Your task to perform on an android device: Set the phone to "Do not disturb". Image 0: 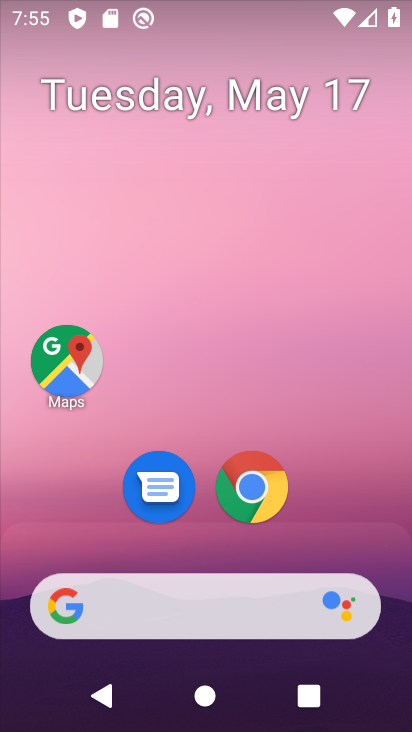
Step 0: drag from (247, 667) to (216, 80)
Your task to perform on an android device: Set the phone to "Do not disturb". Image 1: 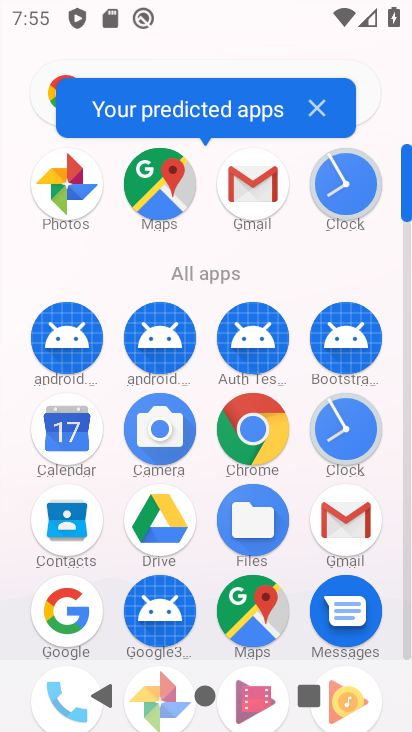
Step 1: drag from (120, 483) to (140, 224)
Your task to perform on an android device: Set the phone to "Do not disturb". Image 2: 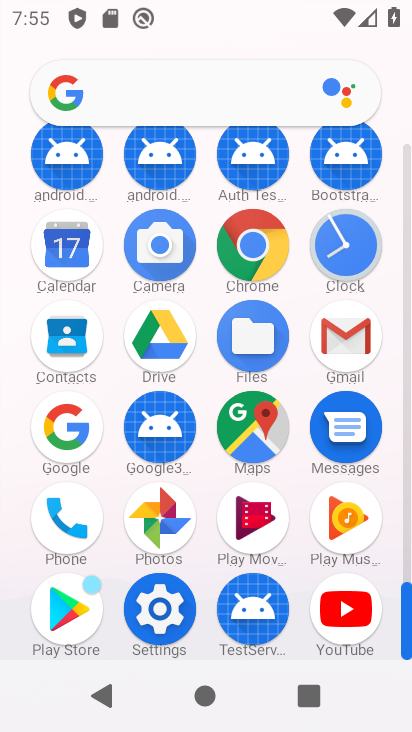
Step 2: click (167, 601)
Your task to perform on an android device: Set the phone to "Do not disturb". Image 3: 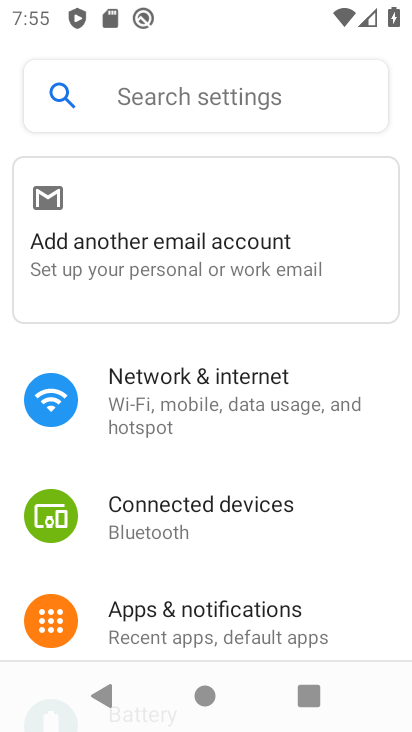
Step 3: click (172, 107)
Your task to perform on an android device: Set the phone to "Do not disturb". Image 4: 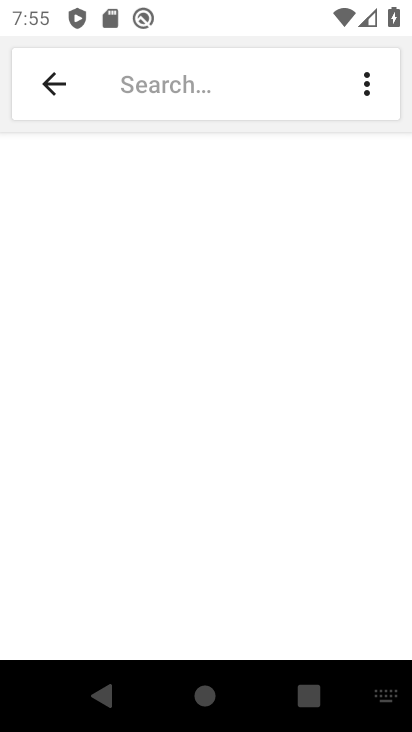
Step 4: click (375, 697)
Your task to perform on an android device: Set the phone to "Do not disturb". Image 5: 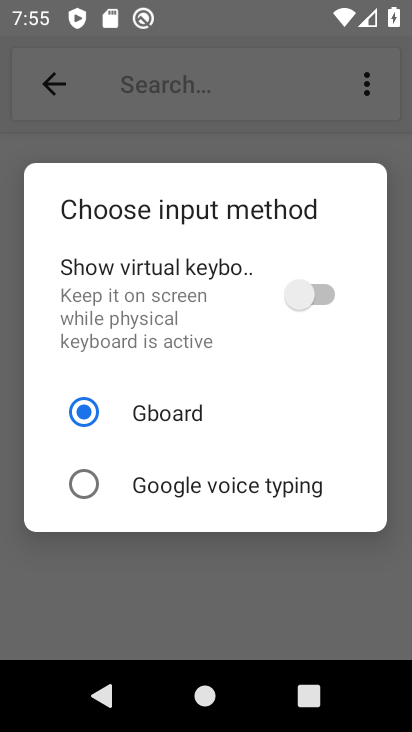
Step 5: click (300, 284)
Your task to perform on an android device: Set the phone to "Do not disturb". Image 6: 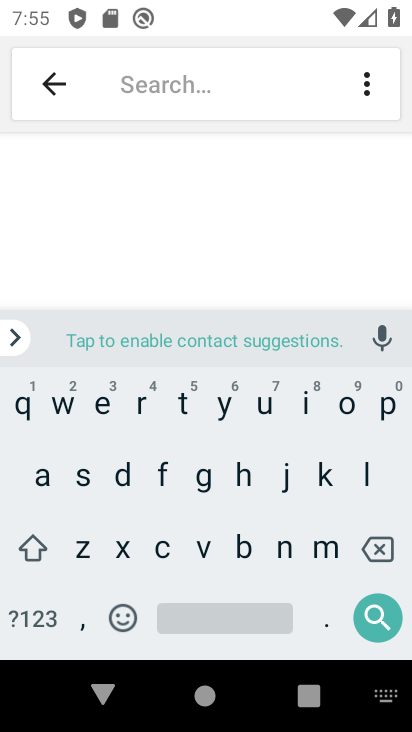
Step 6: click (125, 464)
Your task to perform on an android device: Set the phone to "Do not disturb". Image 7: 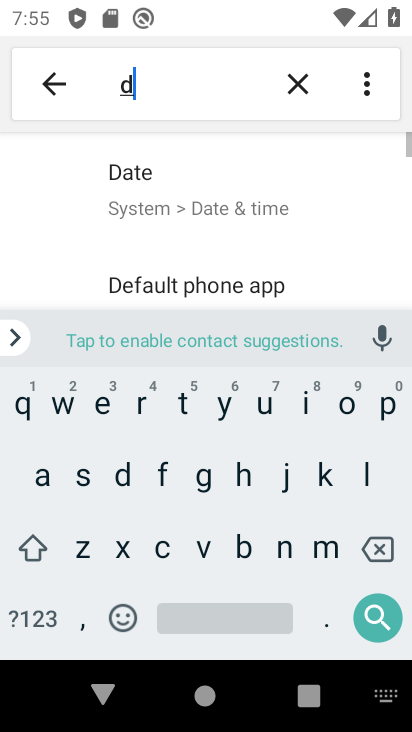
Step 7: click (278, 546)
Your task to perform on an android device: Set the phone to "Do not disturb". Image 8: 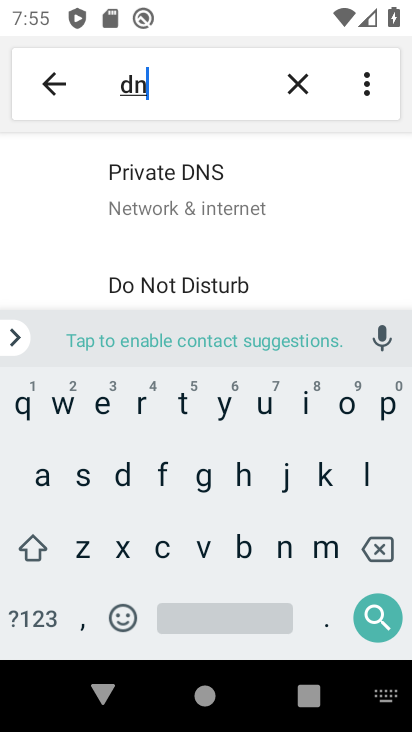
Step 8: click (171, 282)
Your task to perform on an android device: Set the phone to "Do not disturb". Image 9: 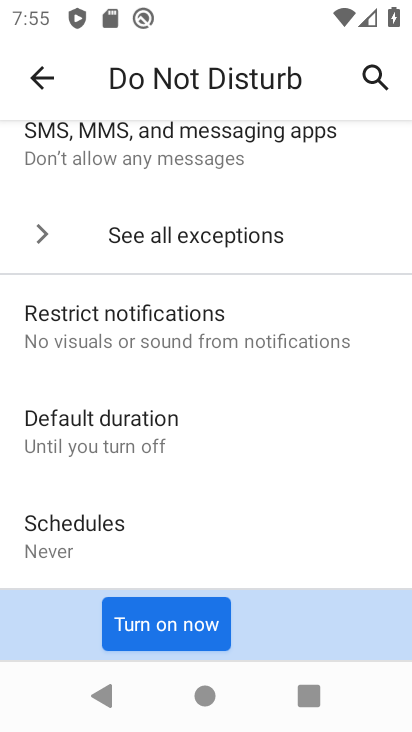
Step 9: click (180, 629)
Your task to perform on an android device: Set the phone to "Do not disturb". Image 10: 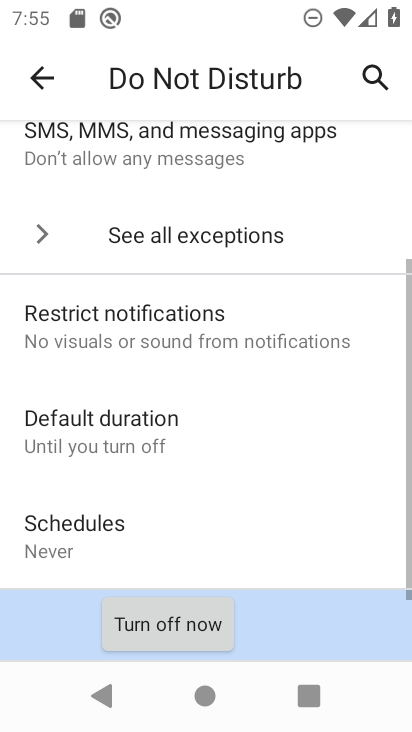
Step 10: task complete